Your task to perform on an android device: What's the weather today? Image 0: 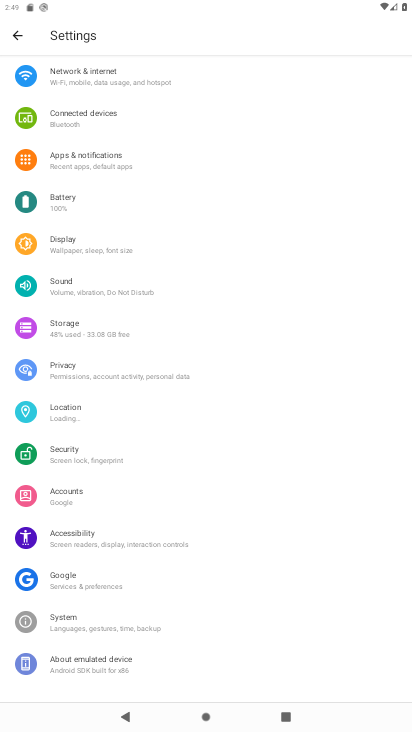
Step 0: press home button
Your task to perform on an android device: What's the weather today? Image 1: 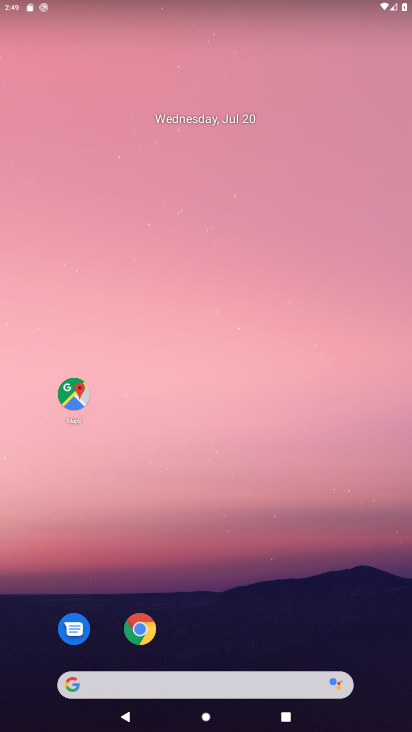
Step 1: click (178, 682)
Your task to perform on an android device: What's the weather today? Image 2: 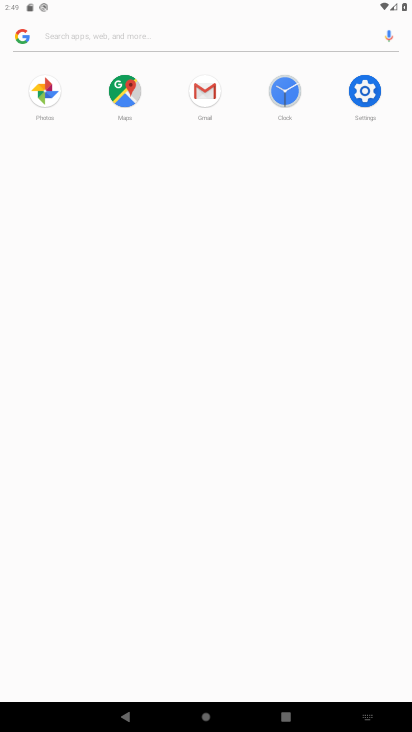
Step 2: click (130, 48)
Your task to perform on an android device: What's the weather today? Image 3: 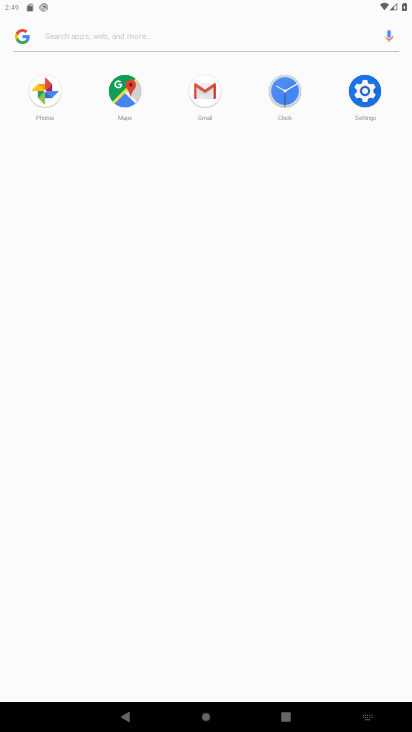
Step 3: type "What's the weather today?"
Your task to perform on an android device: What's the weather today? Image 4: 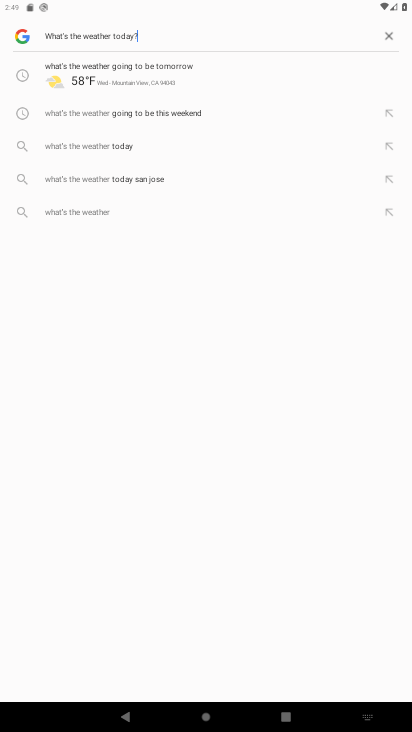
Step 4: type ""
Your task to perform on an android device: What's the weather today? Image 5: 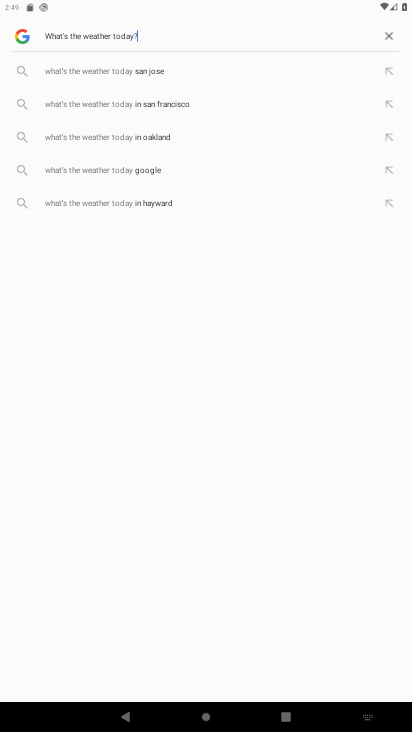
Step 5: press enter
Your task to perform on an android device: What's the weather today? Image 6: 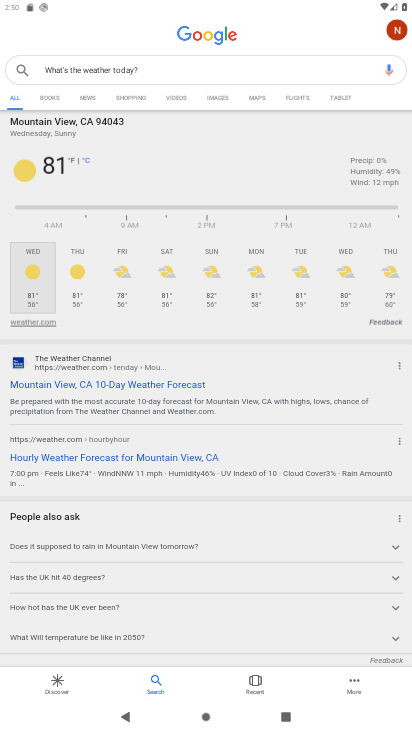
Step 6: task complete